Your task to perform on an android device: Open CNN.com Image 0: 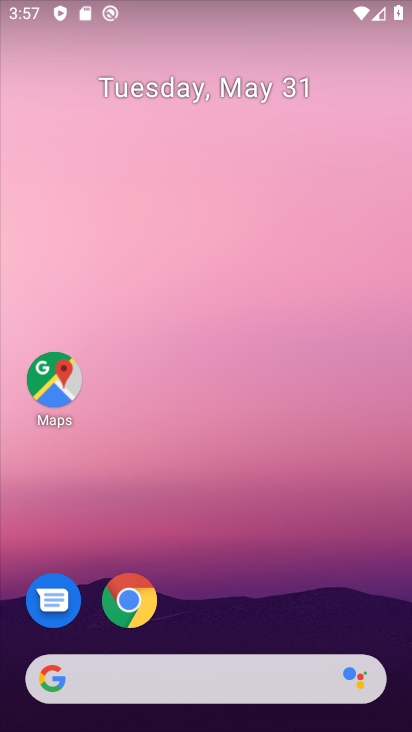
Step 0: click (128, 599)
Your task to perform on an android device: Open CNN.com Image 1: 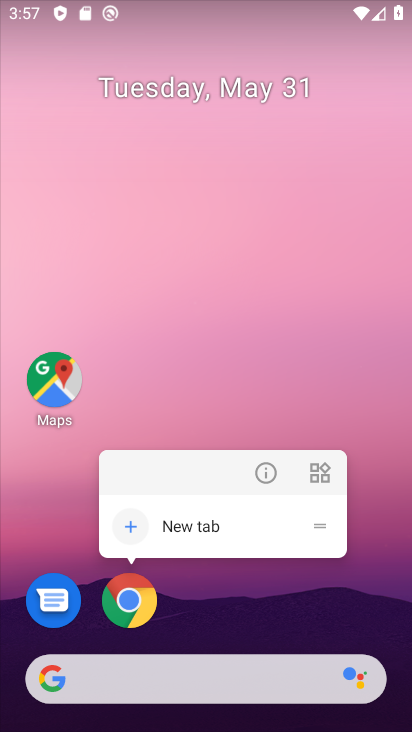
Step 1: click (128, 599)
Your task to perform on an android device: Open CNN.com Image 2: 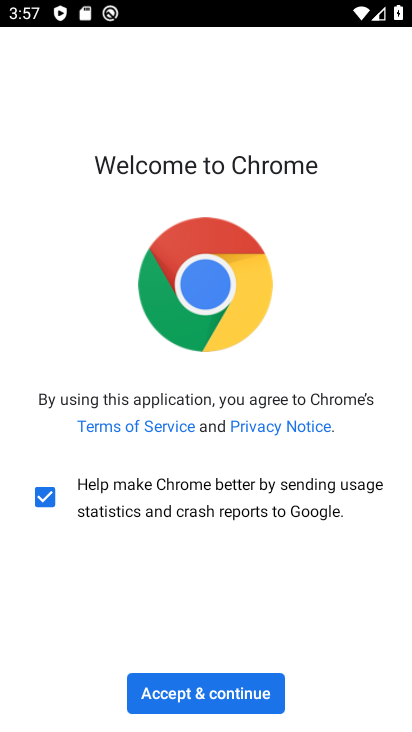
Step 2: click (216, 692)
Your task to perform on an android device: Open CNN.com Image 3: 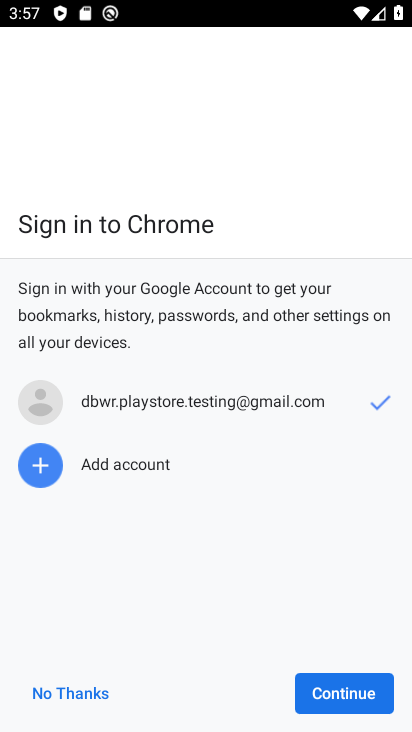
Step 3: click (344, 693)
Your task to perform on an android device: Open CNN.com Image 4: 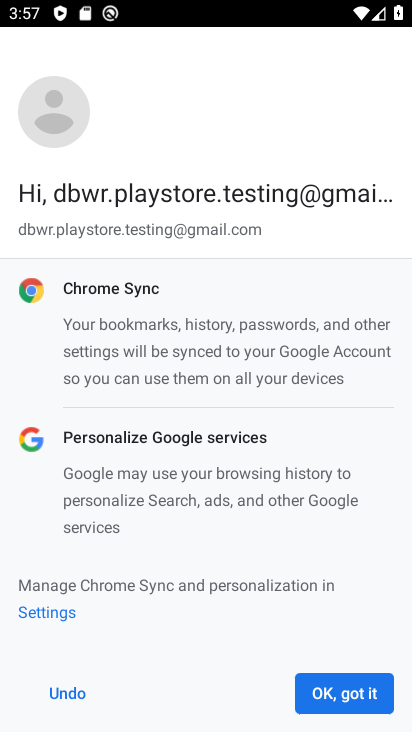
Step 4: click (344, 693)
Your task to perform on an android device: Open CNN.com Image 5: 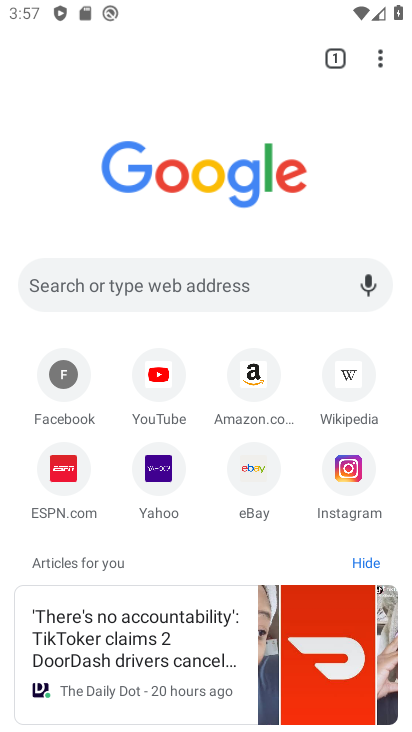
Step 5: click (223, 281)
Your task to perform on an android device: Open CNN.com Image 6: 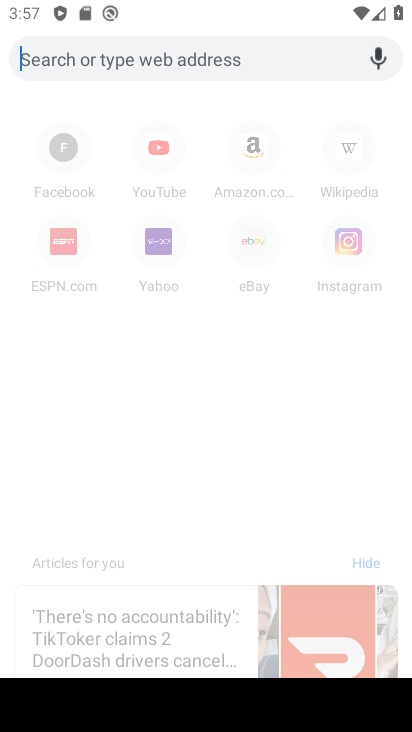
Step 6: type "CNN.com"
Your task to perform on an android device: Open CNN.com Image 7: 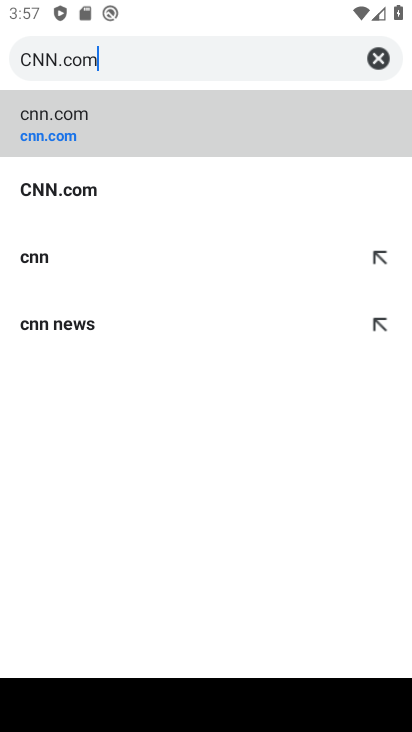
Step 7: type ""
Your task to perform on an android device: Open CNN.com Image 8: 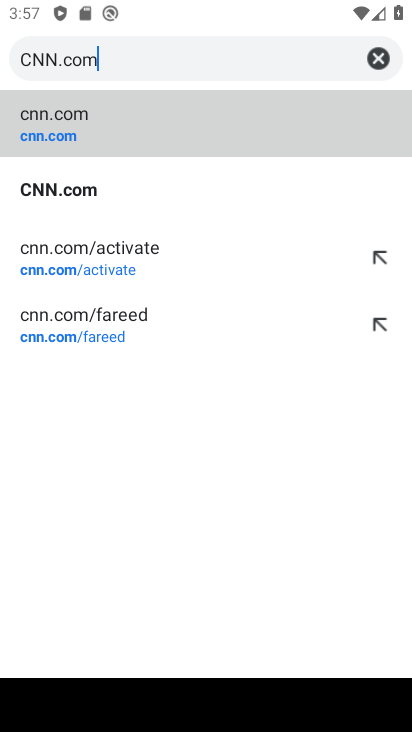
Step 8: click (83, 184)
Your task to perform on an android device: Open CNN.com Image 9: 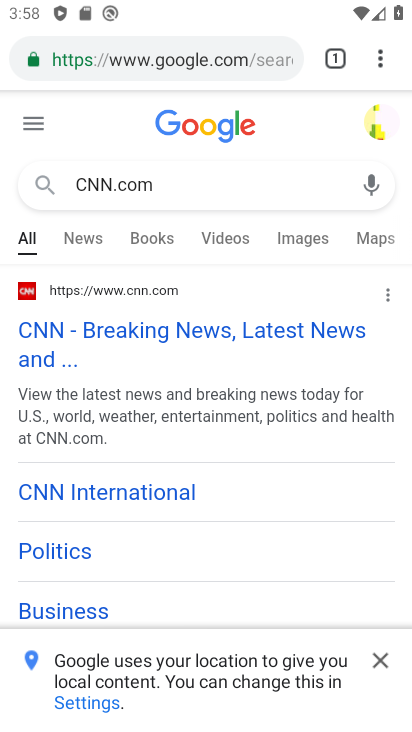
Step 9: click (132, 330)
Your task to perform on an android device: Open CNN.com Image 10: 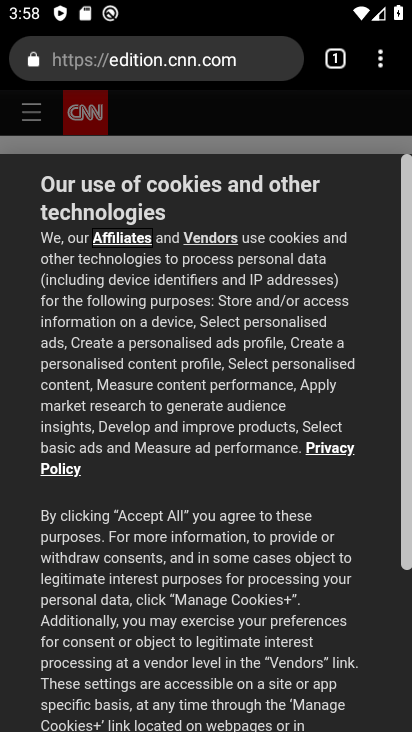
Step 10: task complete